Your task to perform on an android device: open app "LinkedIn" (install if not already installed) and go to login screen Image 0: 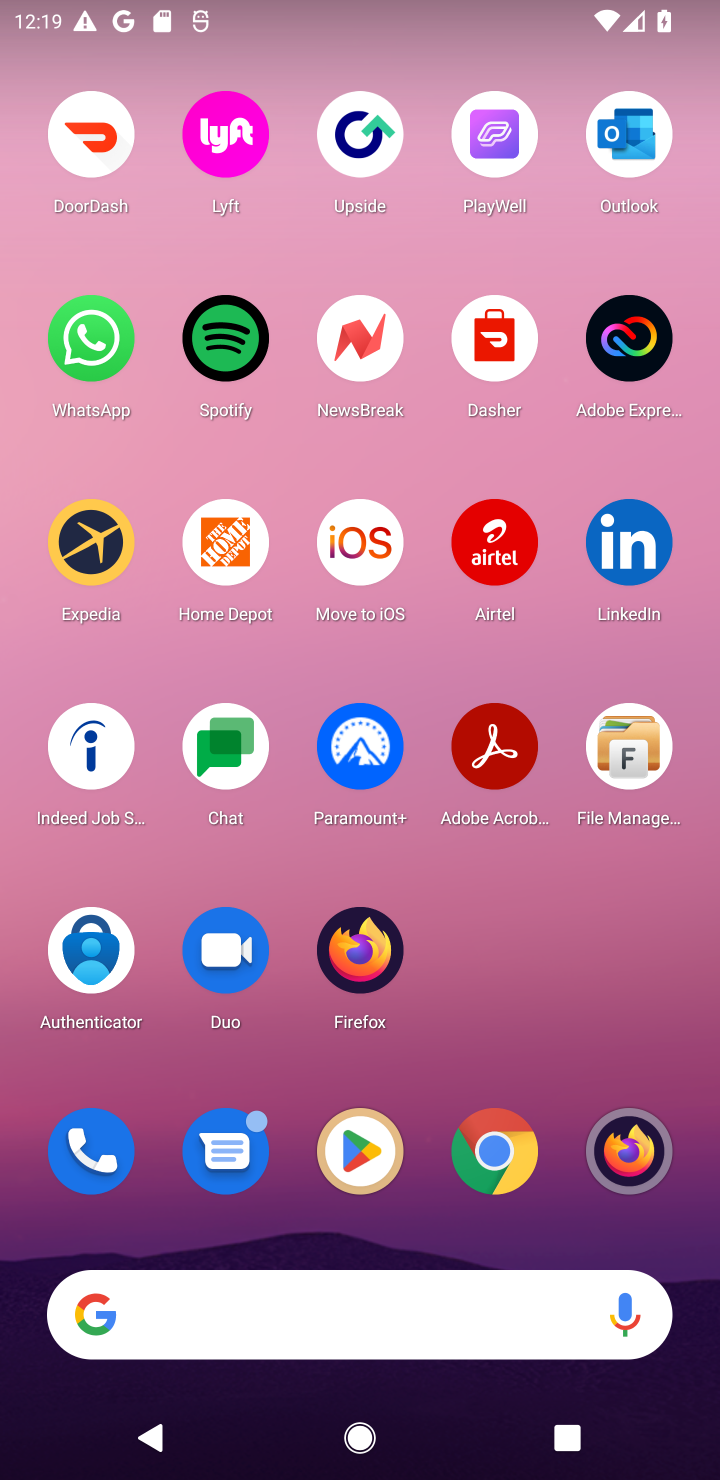
Step 0: click (332, 1159)
Your task to perform on an android device: open app "LinkedIn" (install if not already installed) and go to login screen Image 1: 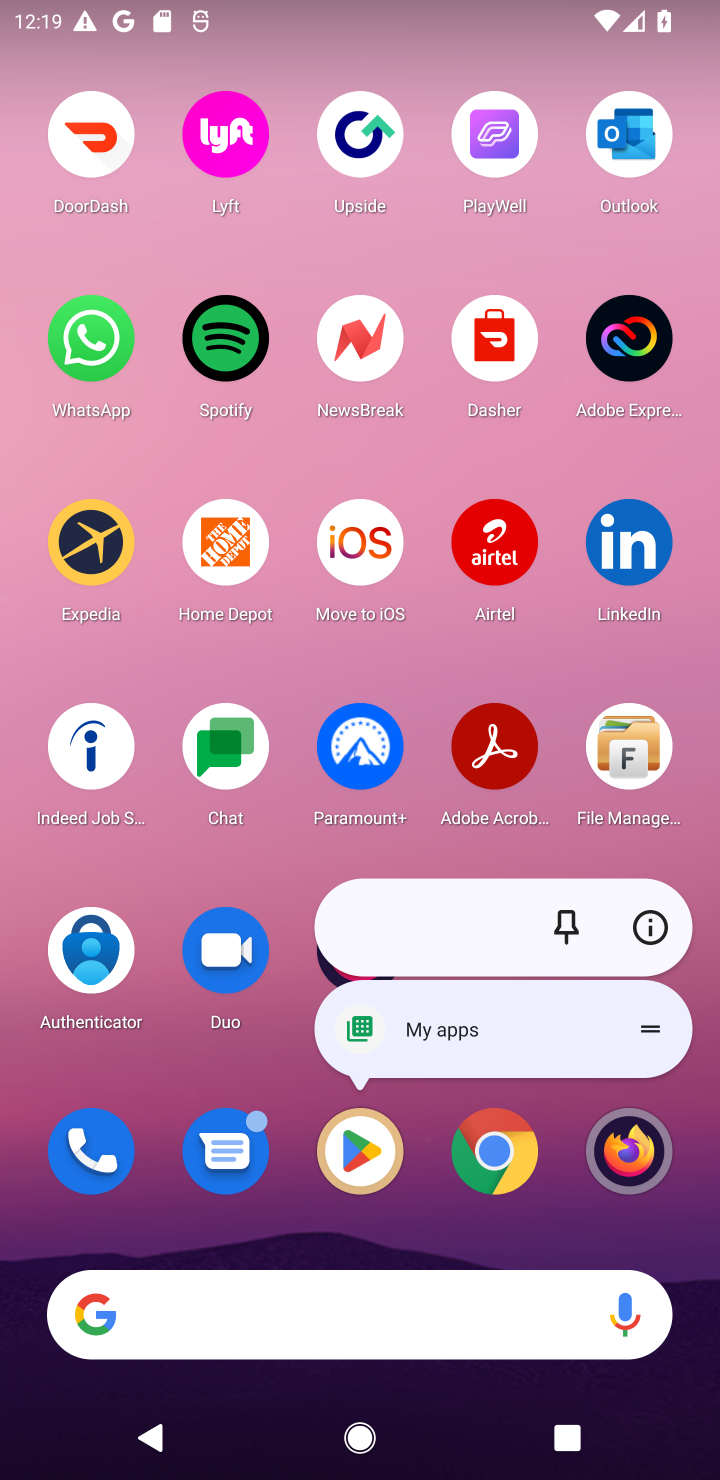
Step 1: click (332, 1159)
Your task to perform on an android device: open app "LinkedIn" (install if not already installed) and go to login screen Image 2: 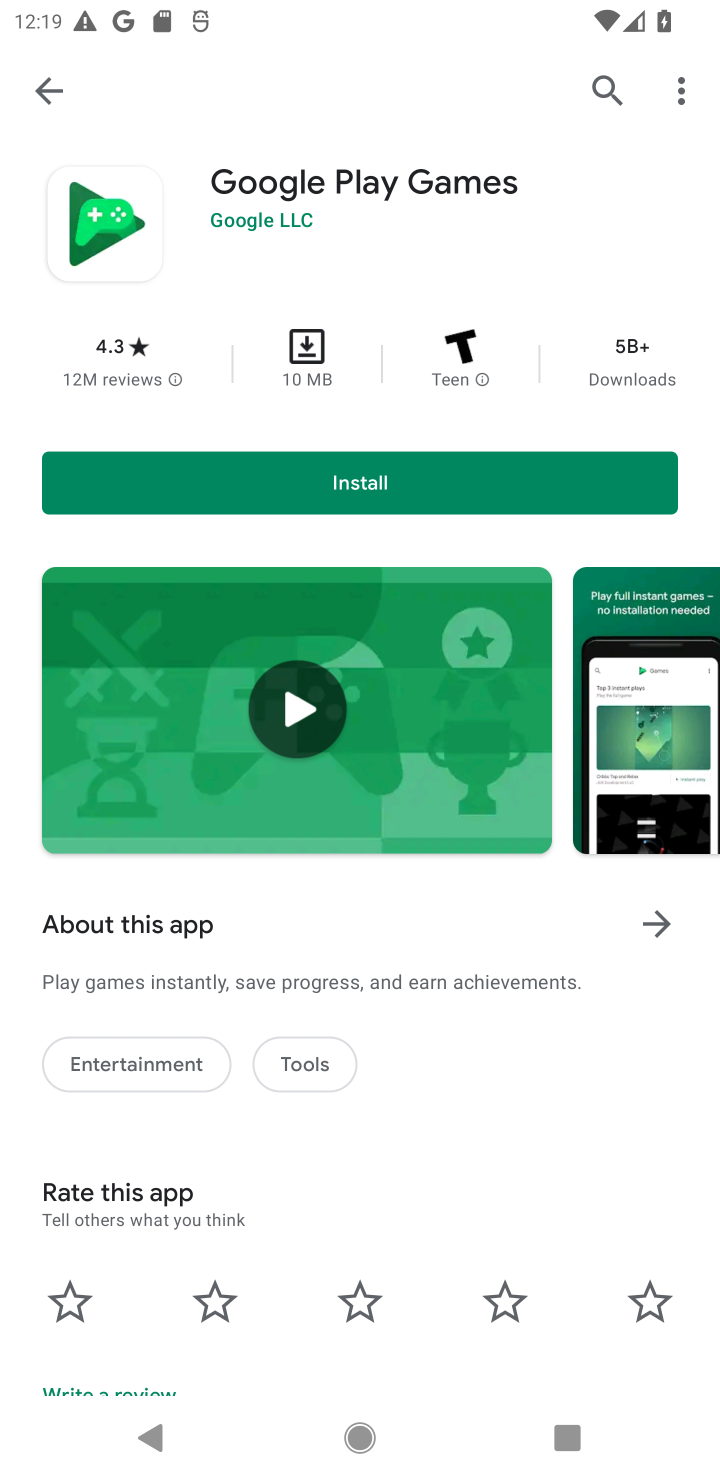
Step 2: click (582, 84)
Your task to perform on an android device: open app "LinkedIn" (install if not already installed) and go to login screen Image 3: 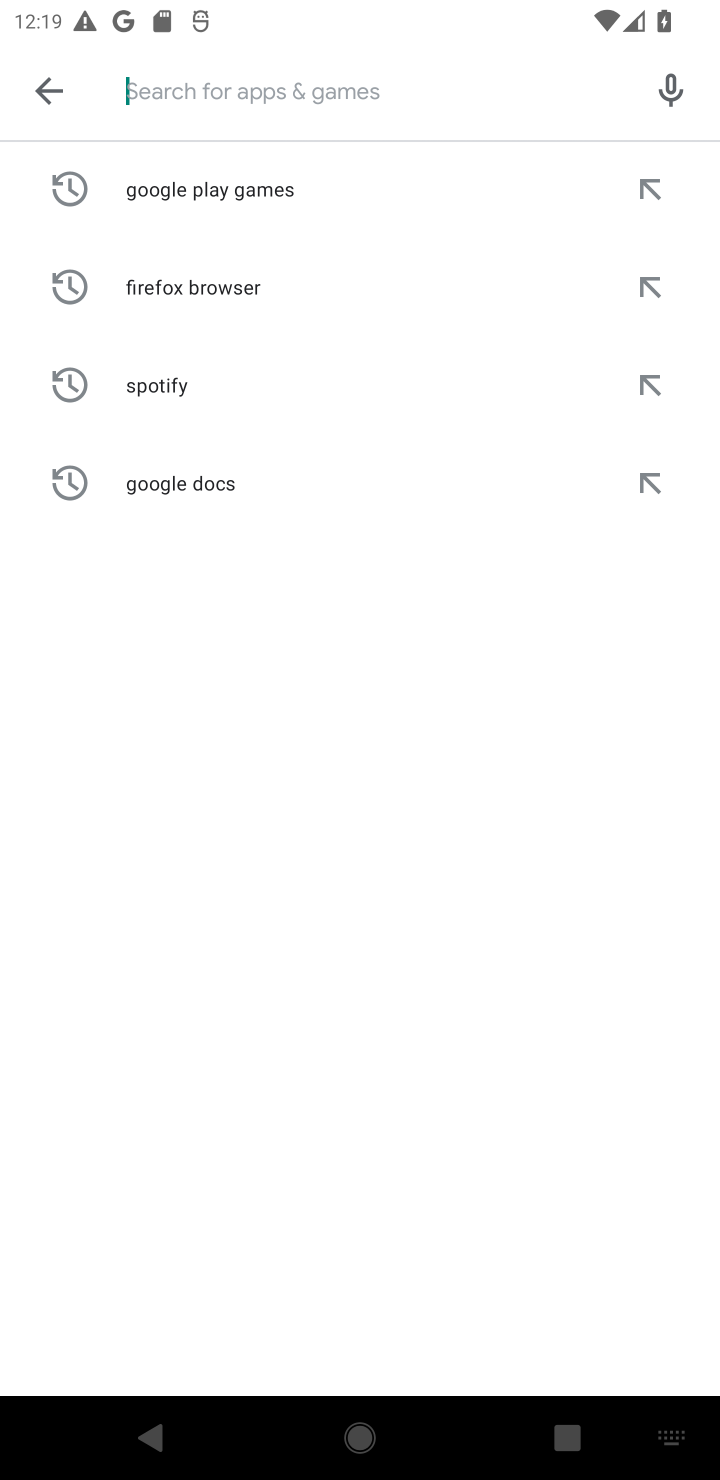
Step 3: type "LinkedIn"
Your task to perform on an android device: open app "LinkedIn" (install if not already installed) and go to login screen Image 4: 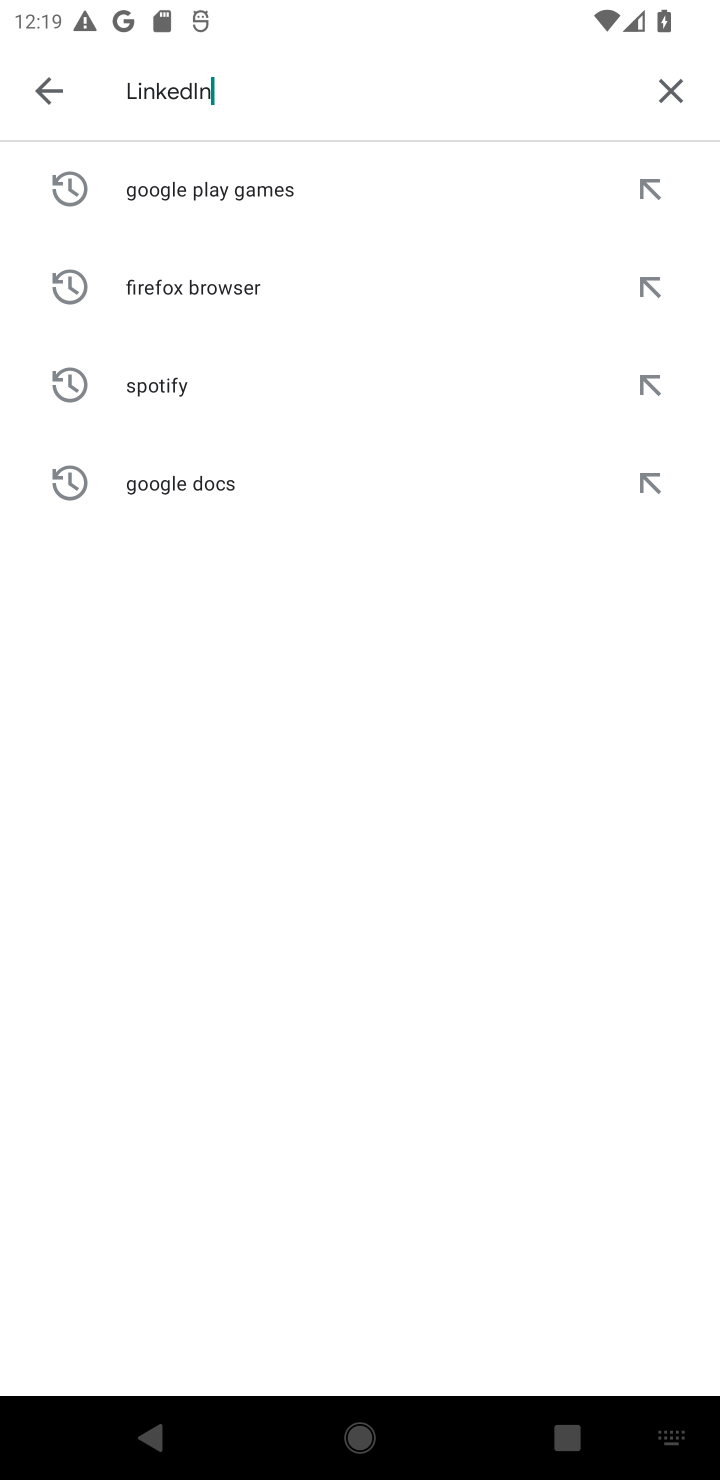
Step 4: type ""
Your task to perform on an android device: open app "LinkedIn" (install if not already installed) and go to login screen Image 5: 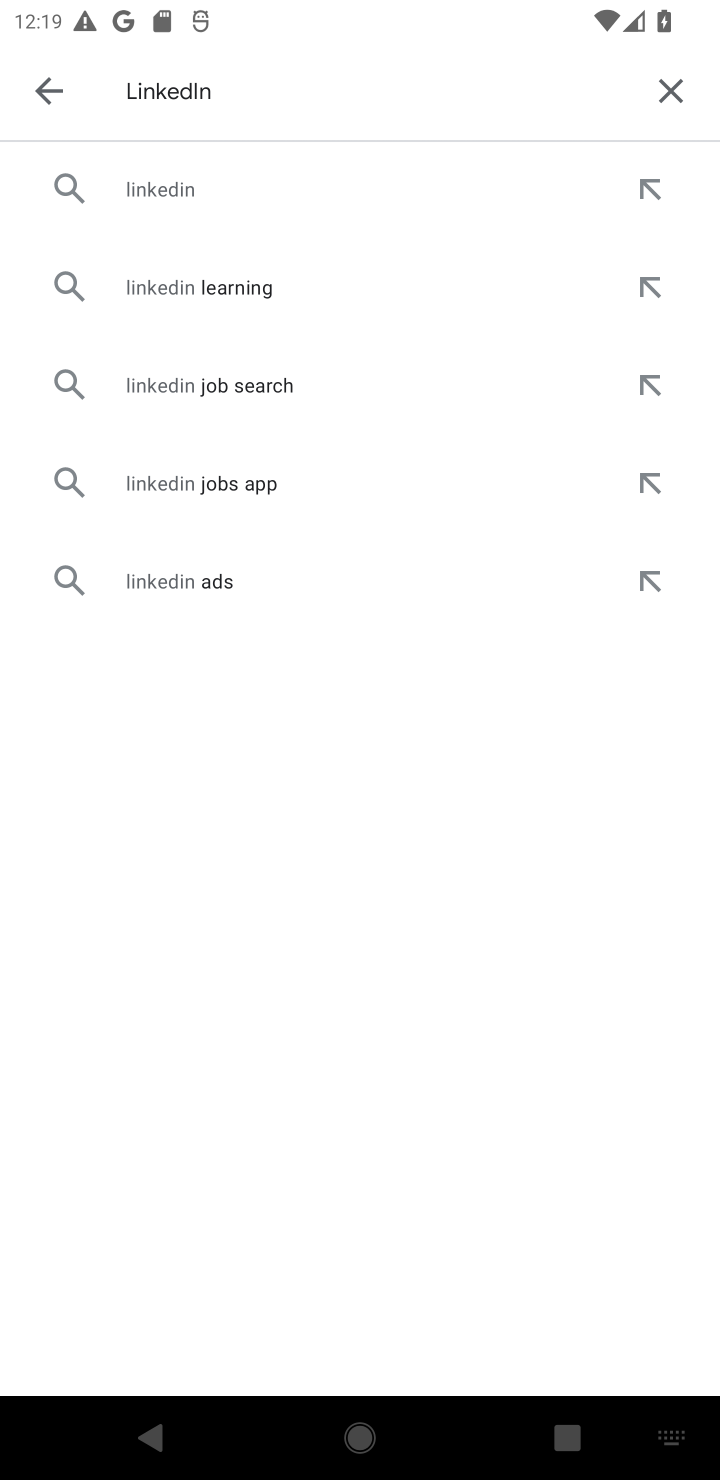
Step 5: click (281, 176)
Your task to perform on an android device: open app "LinkedIn" (install if not already installed) and go to login screen Image 6: 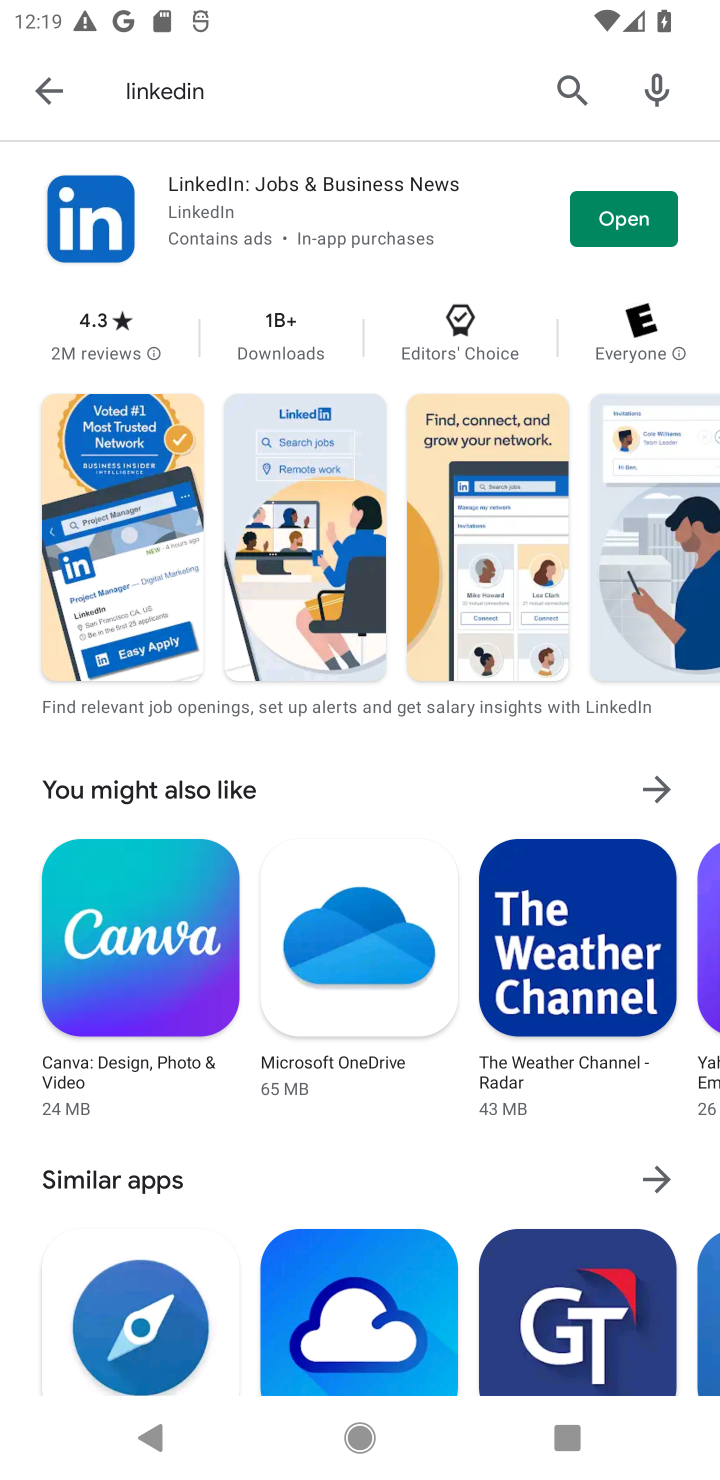
Step 6: click (629, 222)
Your task to perform on an android device: open app "LinkedIn" (install if not already installed) and go to login screen Image 7: 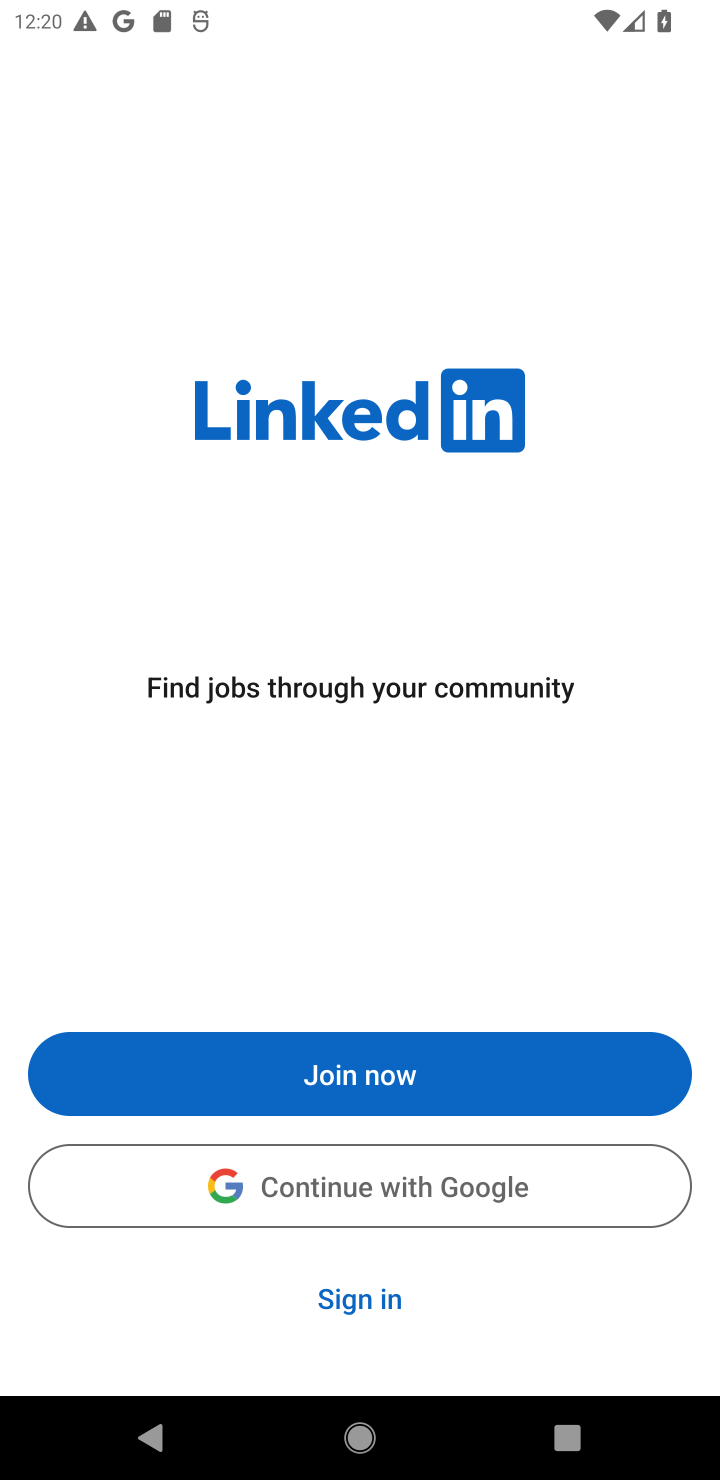
Step 7: task complete